Your task to perform on an android device: add a contact Image 0: 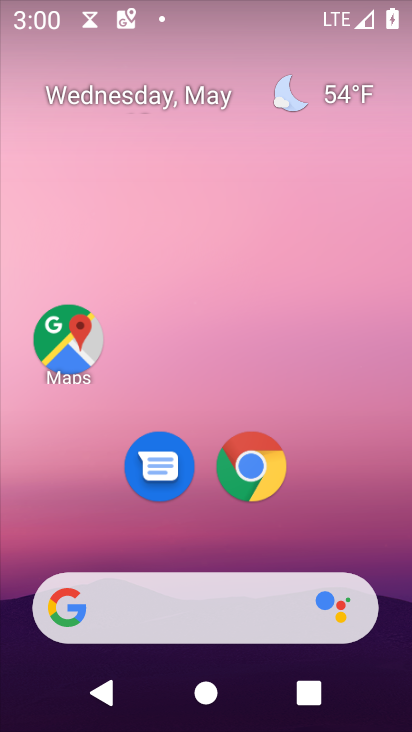
Step 0: drag from (388, 523) to (308, 179)
Your task to perform on an android device: add a contact Image 1: 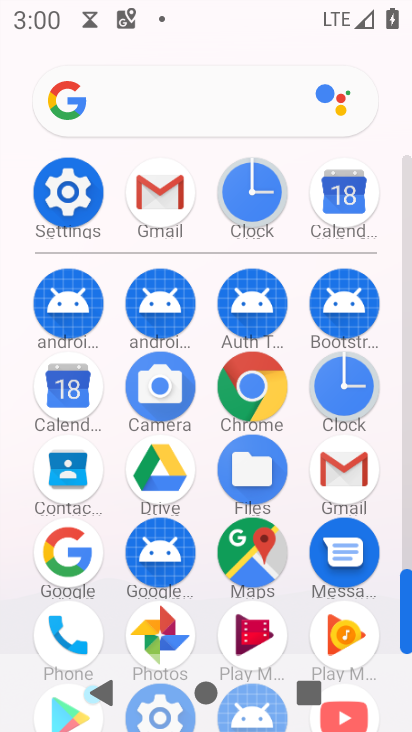
Step 1: click (76, 457)
Your task to perform on an android device: add a contact Image 2: 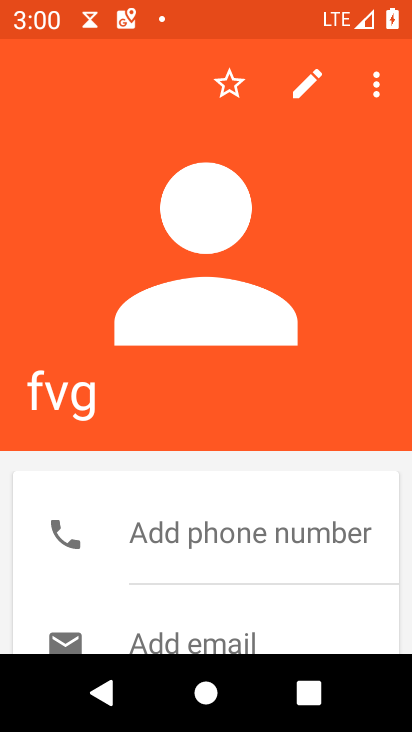
Step 2: drag from (371, 561) to (322, 185)
Your task to perform on an android device: add a contact Image 3: 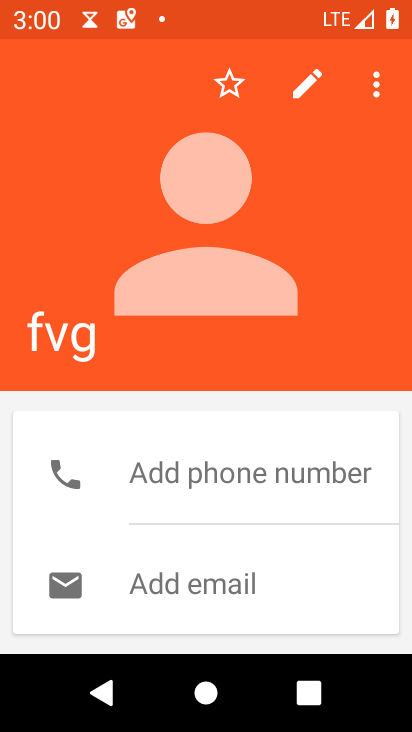
Step 3: press back button
Your task to perform on an android device: add a contact Image 4: 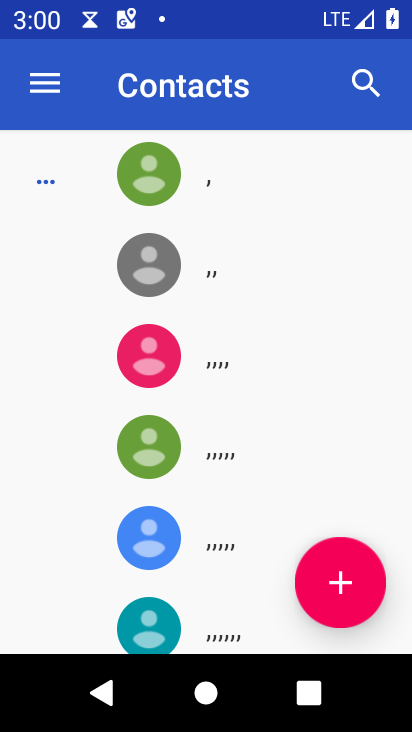
Step 4: click (362, 564)
Your task to perform on an android device: add a contact Image 5: 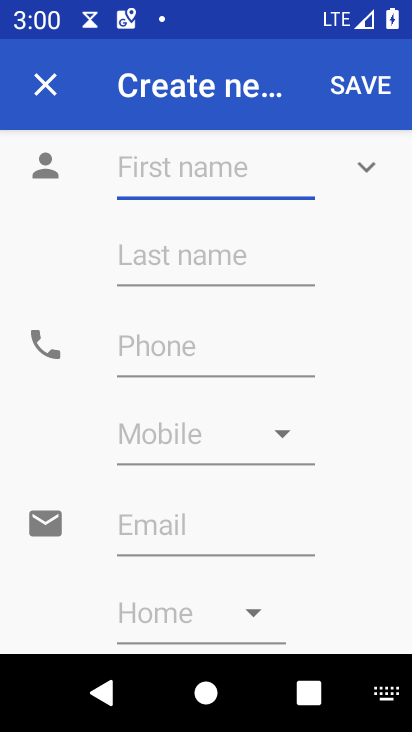
Step 5: click (229, 177)
Your task to perform on an android device: add a contact Image 6: 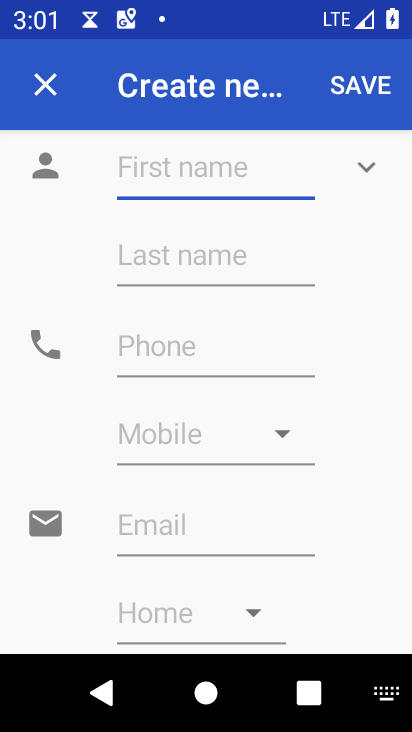
Step 6: type "bhjbjh"
Your task to perform on an android device: add a contact Image 7: 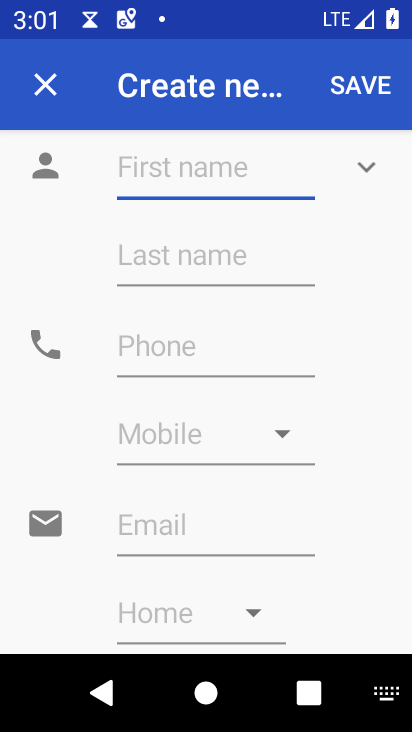
Step 7: click (176, 346)
Your task to perform on an android device: add a contact Image 8: 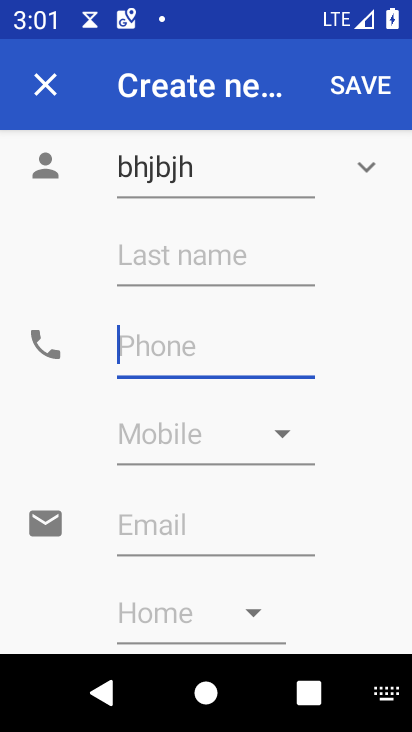
Step 8: type "8y98y98"
Your task to perform on an android device: add a contact Image 9: 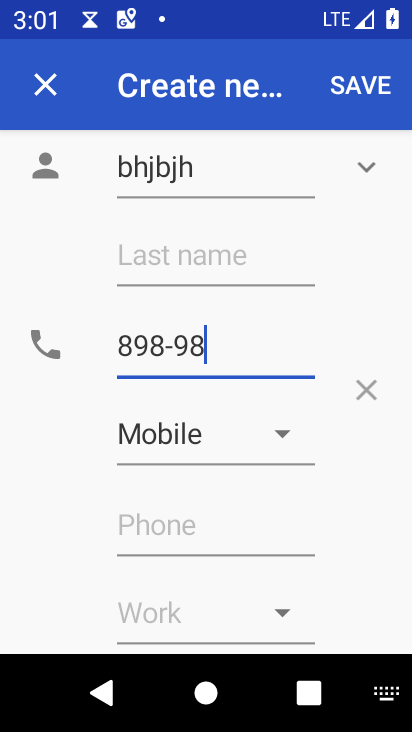
Step 9: click (374, 100)
Your task to perform on an android device: add a contact Image 10: 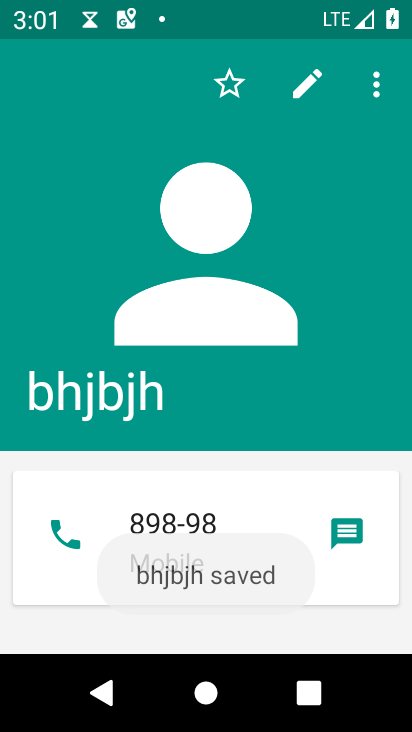
Step 10: task complete